Your task to perform on an android device: Open sound settings Image 0: 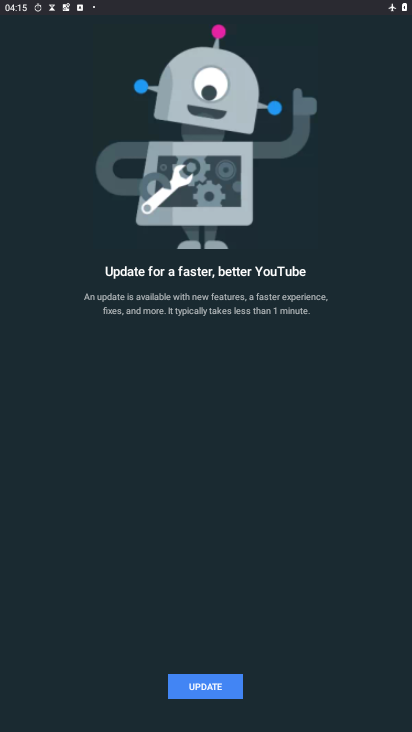
Step 0: press home button
Your task to perform on an android device: Open sound settings Image 1: 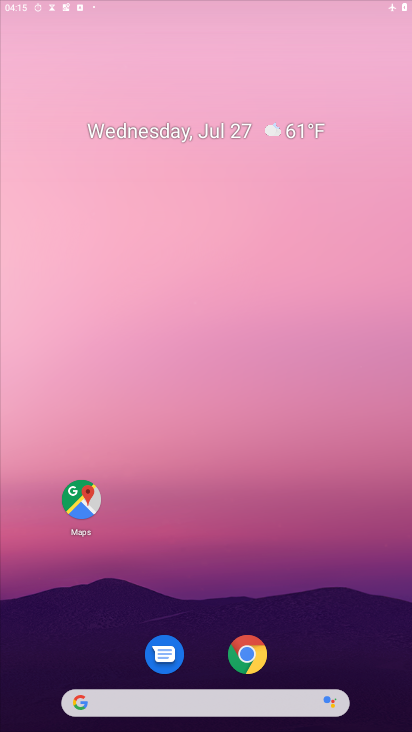
Step 1: drag from (185, 612) to (210, 2)
Your task to perform on an android device: Open sound settings Image 2: 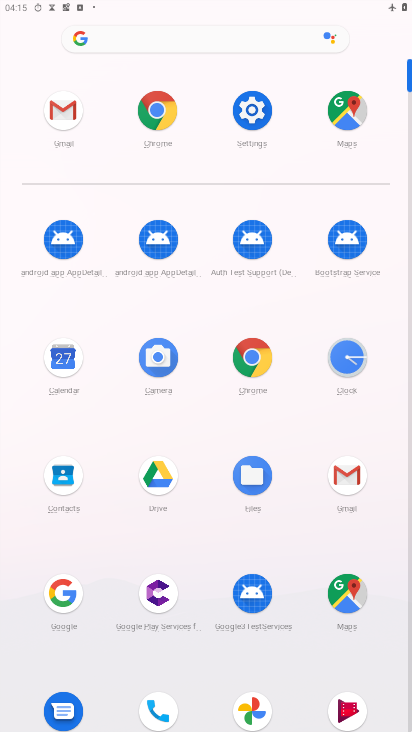
Step 2: click (283, 183)
Your task to perform on an android device: Open sound settings Image 3: 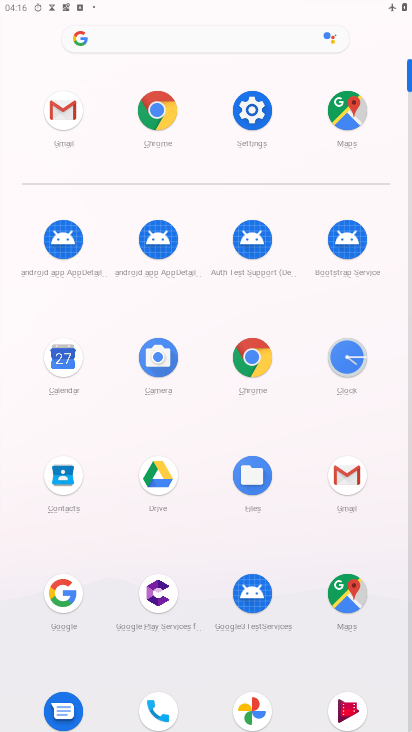
Step 3: click (250, 110)
Your task to perform on an android device: Open sound settings Image 4: 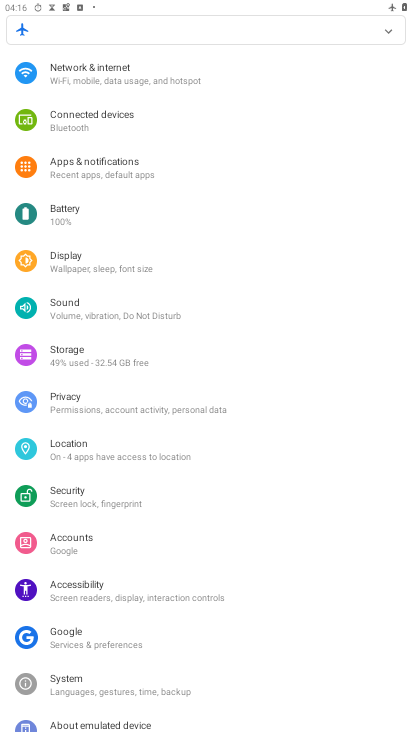
Step 4: click (91, 295)
Your task to perform on an android device: Open sound settings Image 5: 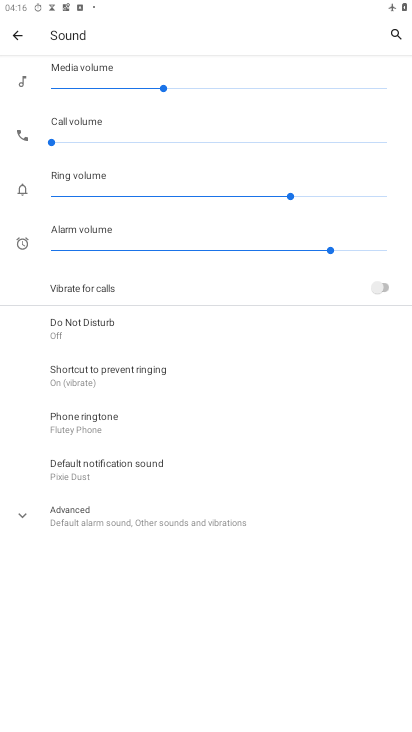
Step 5: task complete